Your task to perform on an android device: Open Reddit.com Image 0: 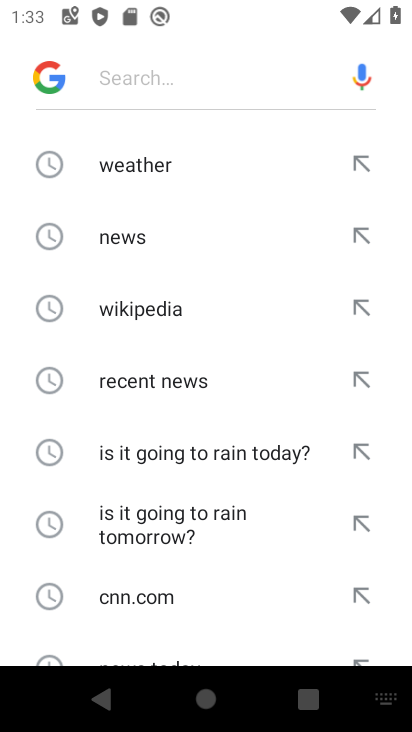
Step 0: press home button
Your task to perform on an android device: Open Reddit.com Image 1: 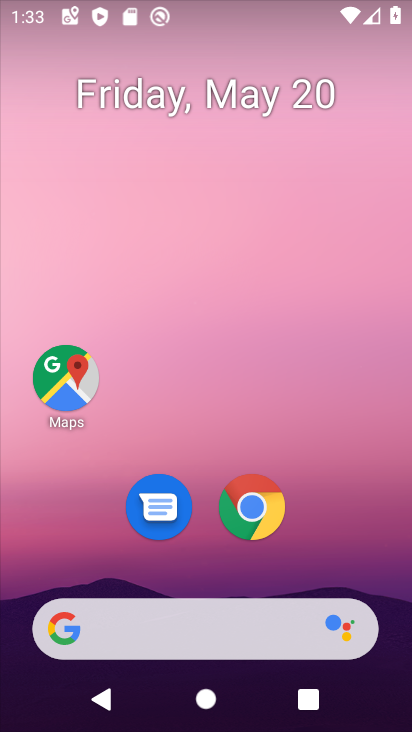
Step 1: click (258, 505)
Your task to perform on an android device: Open Reddit.com Image 2: 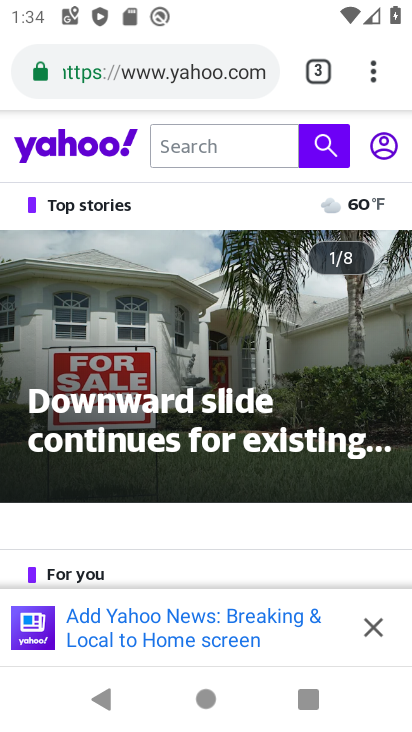
Step 2: click (374, 74)
Your task to perform on an android device: Open Reddit.com Image 3: 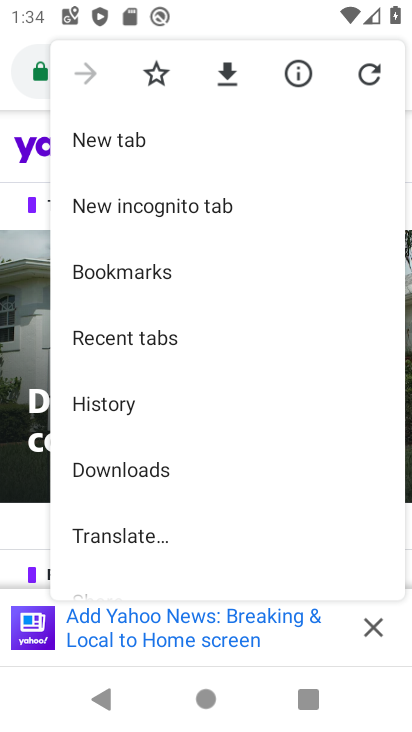
Step 3: click (126, 140)
Your task to perform on an android device: Open Reddit.com Image 4: 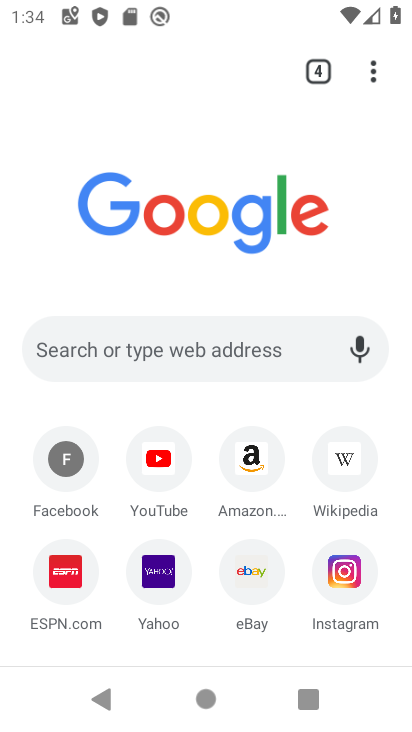
Step 4: click (126, 354)
Your task to perform on an android device: Open Reddit.com Image 5: 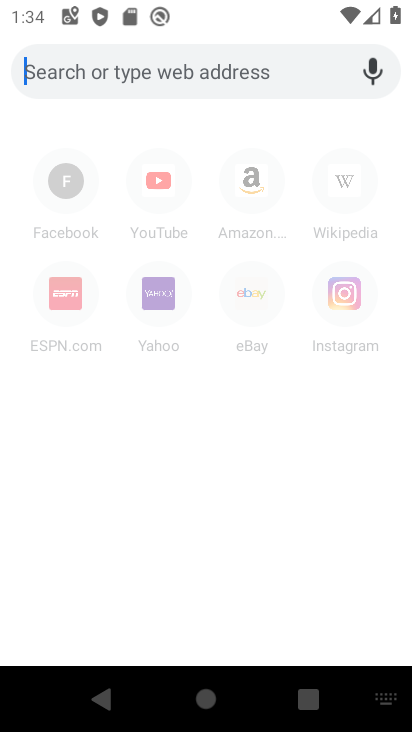
Step 5: type "Reddit.com"
Your task to perform on an android device: Open Reddit.com Image 6: 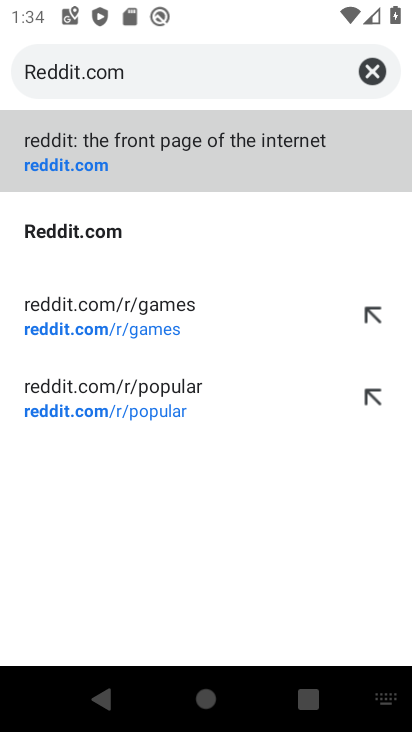
Step 6: click (91, 146)
Your task to perform on an android device: Open Reddit.com Image 7: 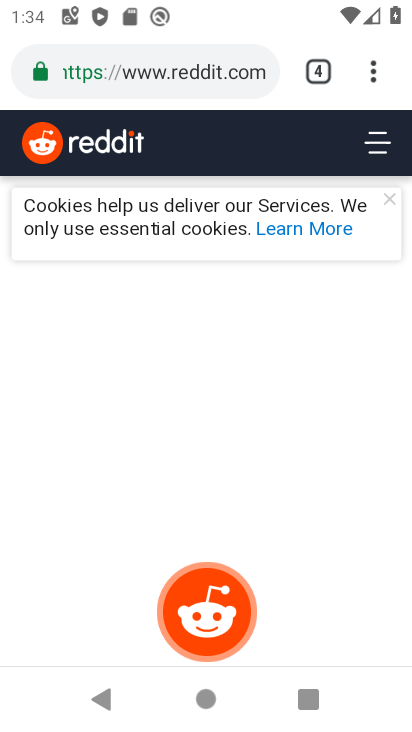
Step 7: task complete